Your task to perform on an android device: check battery use Image 0: 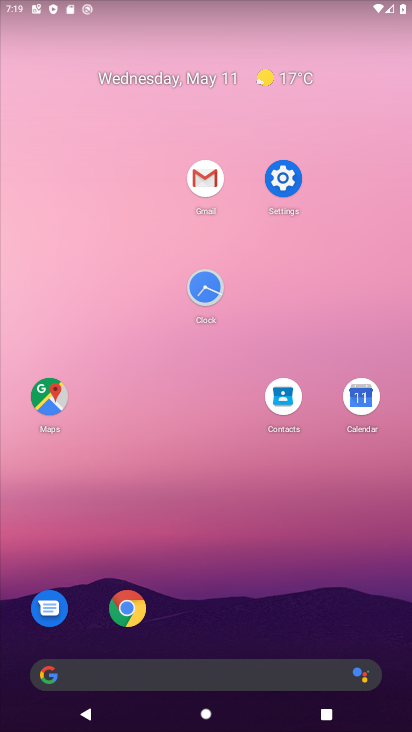
Step 0: click (274, 181)
Your task to perform on an android device: check battery use Image 1: 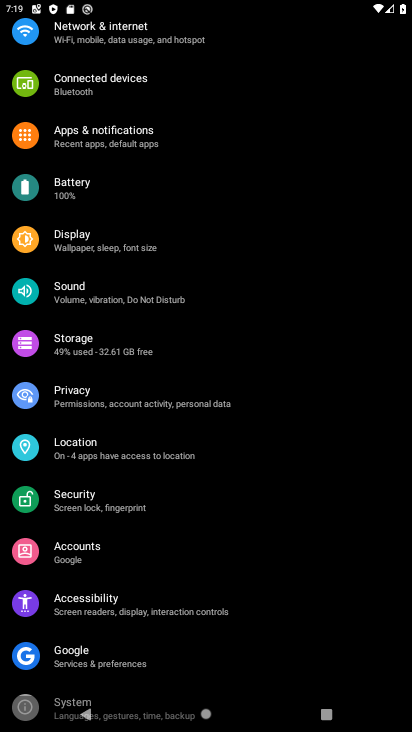
Step 1: click (151, 204)
Your task to perform on an android device: check battery use Image 2: 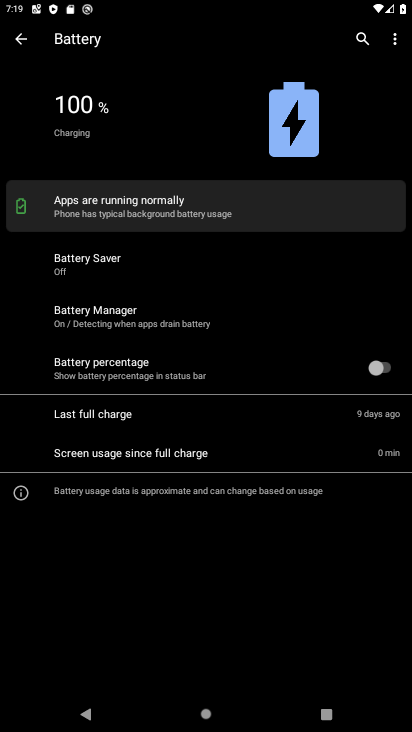
Step 2: task complete